Your task to perform on an android device: toggle improve location accuracy Image 0: 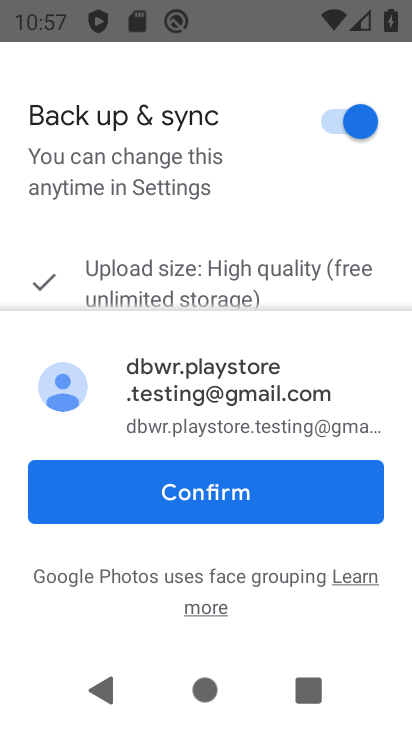
Step 0: press home button
Your task to perform on an android device: toggle improve location accuracy Image 1: 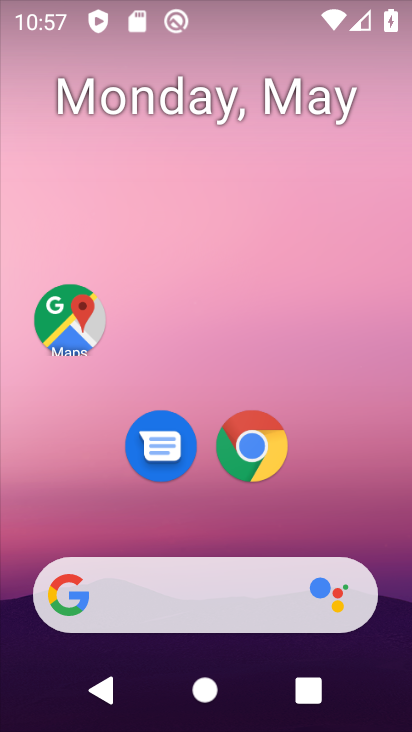
Step 1: click (69, 324)
Your task to perform on an android device: toggle improve location accuracy Image 2: 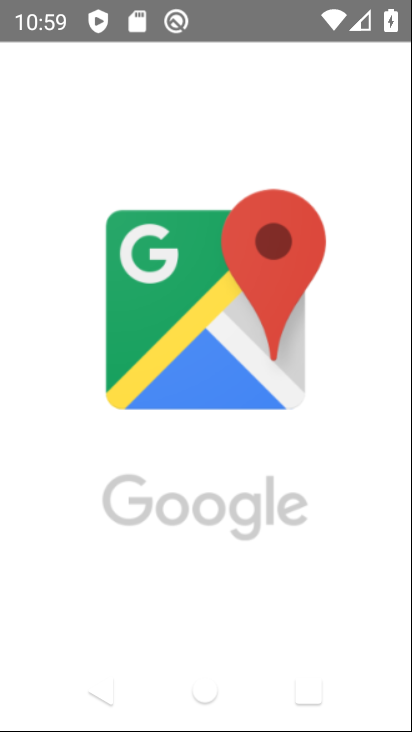
Step 2: task complete